Your task to perform on an android device: turn off picture-in-picture Image 0: 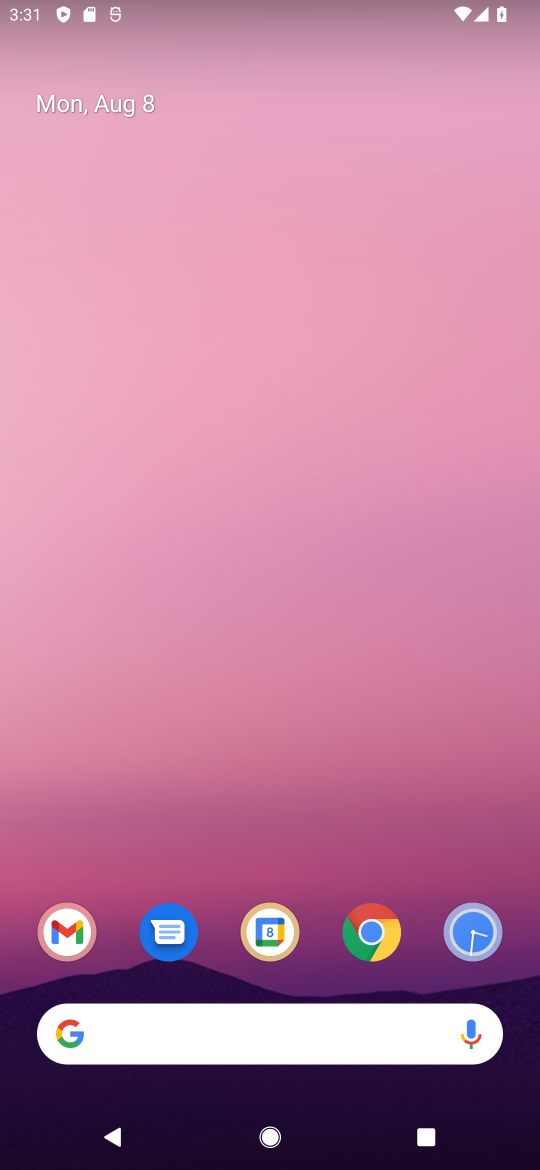
Step 0: click (374, 931)
Your task to perform on an android device: turn off picture-in-picture Image 1: 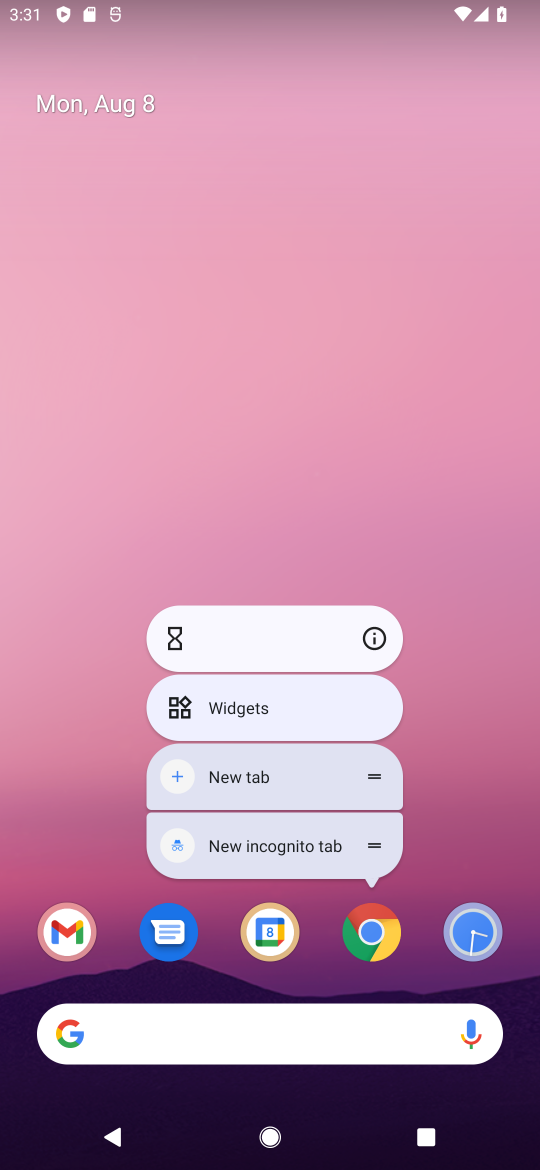
Step 1: click (379, 636)
Your task to perform on an android device: turn off picture-in-picture Image 2: 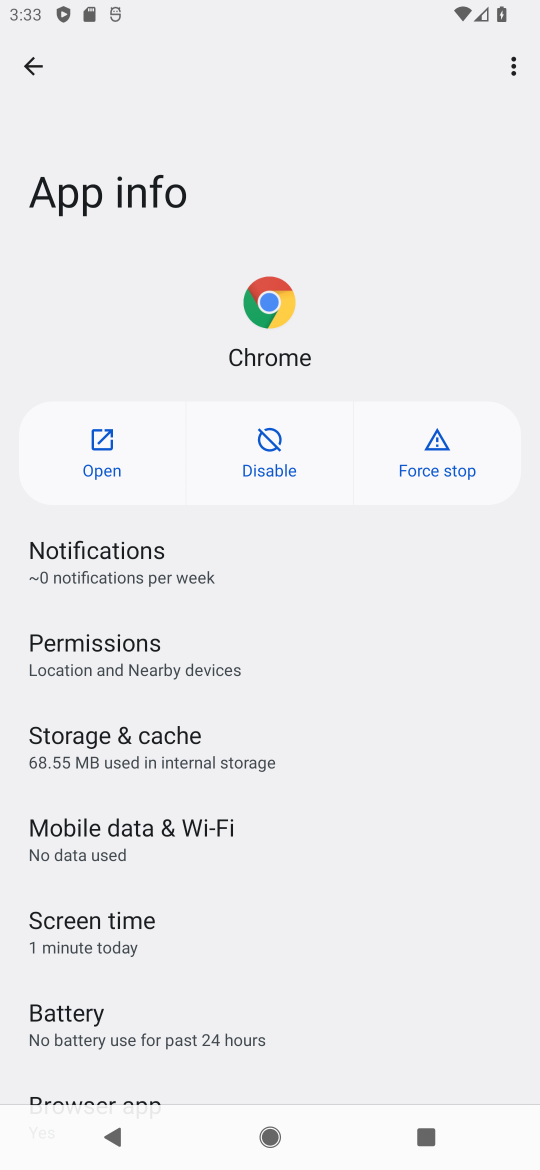
Step 2: drag from (271, 73) to (300, 16)
Your task to perform on an android device: turn off picture-in-picture Image 3: 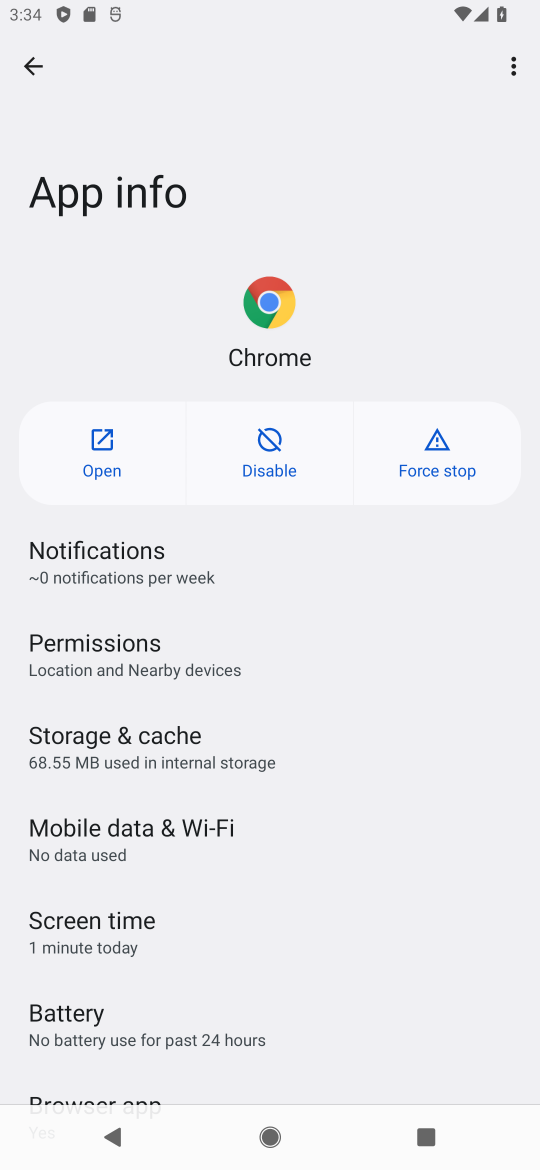
Step 3: drag from (405, 937) to (272, 56)
Your task to perform on an android device: turn off picture-in-picture Image 4: 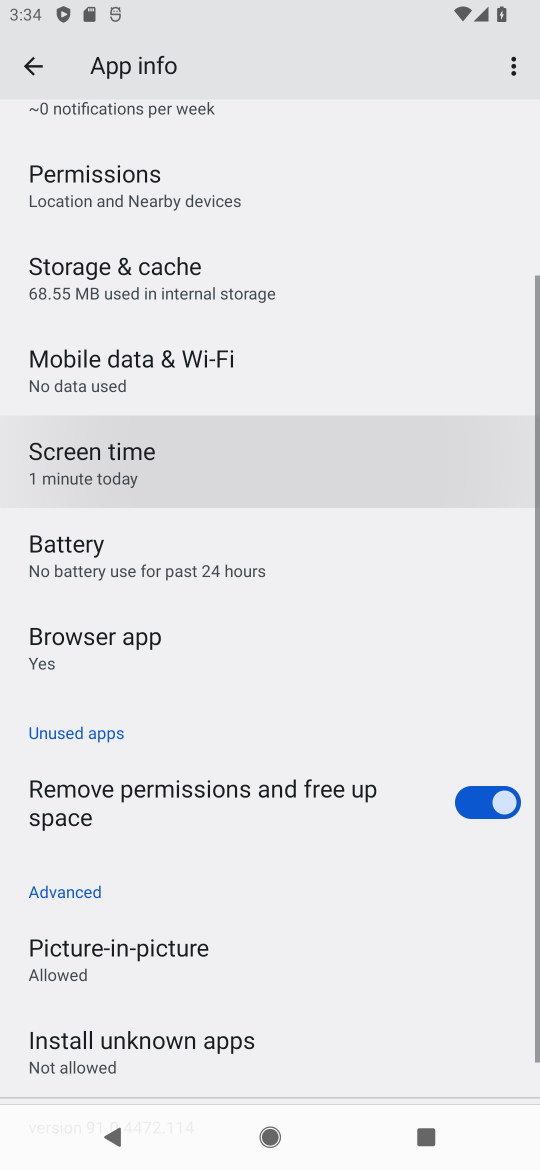
Step 4: click (180, 975)
Your task to perform on an android device: turn off picture-in-picture Image 5: 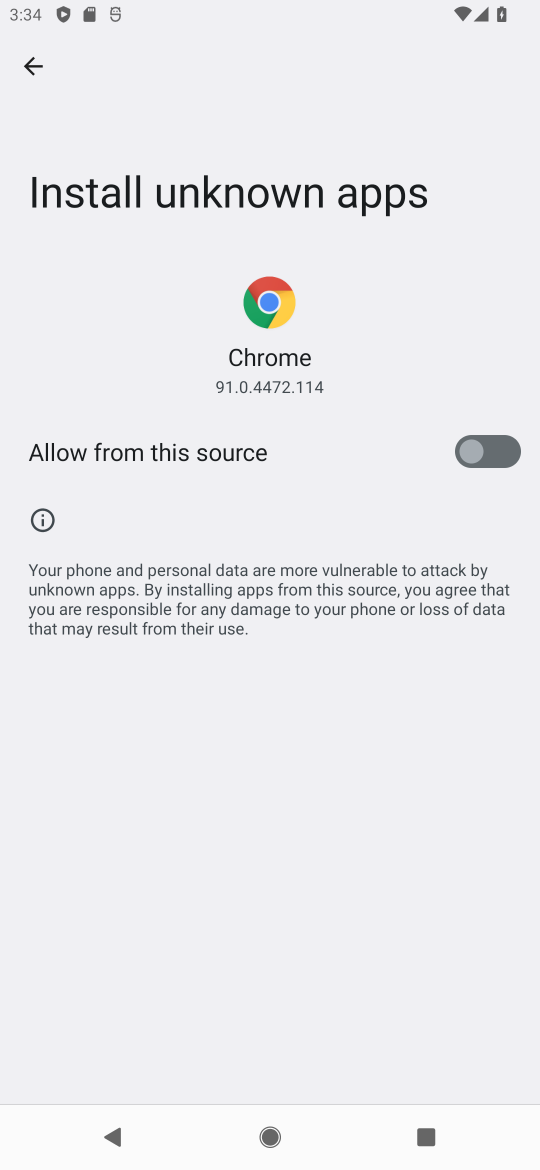
Step 5: task complete